Your task to perform on an android device: Go to CNN.com Image 0: 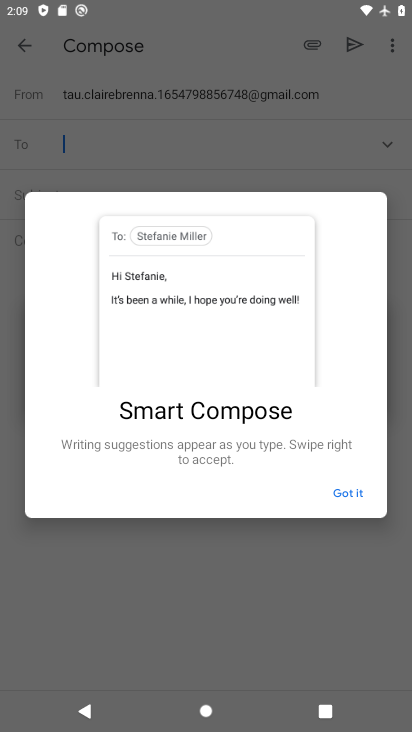
Step 0: press home button
Your task to perform on an android device: Go to CNN.com Image 1: 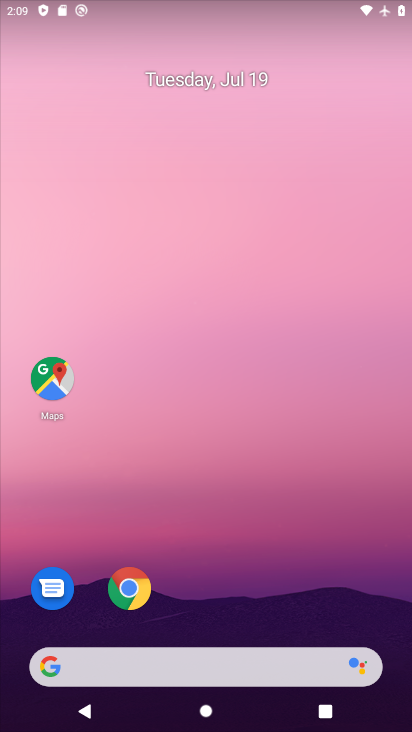
Step 1: click (45, 669)
Your task to perform on an android device: Go to CNN.com Image 2: 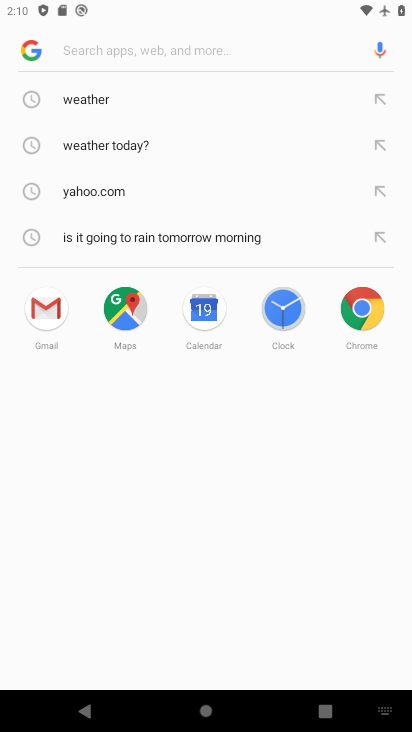
Step 2: type " CNN.com"
Your task to perform on an android device: Go to CNN.com Image 3: 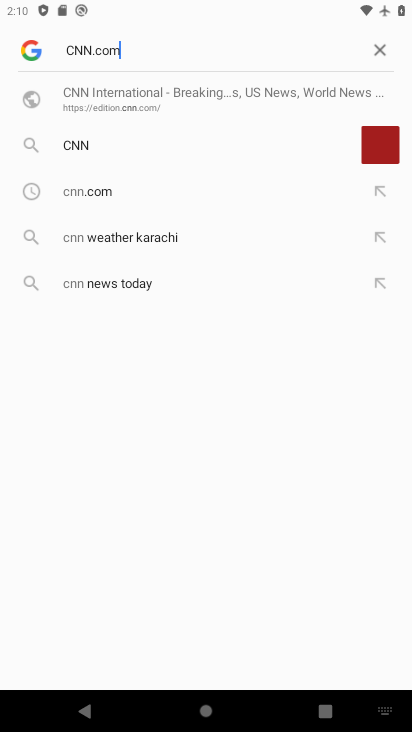
Step 3: press enter
Your task to perform on an android device: Go to CNN.com Image 4: 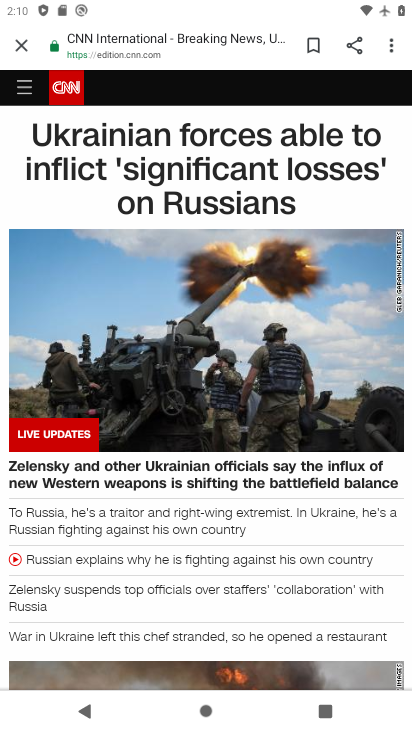
Step 4: task complete